Your task to perform on an android device: Search for seafood restaurants on Google Maps Image 0: 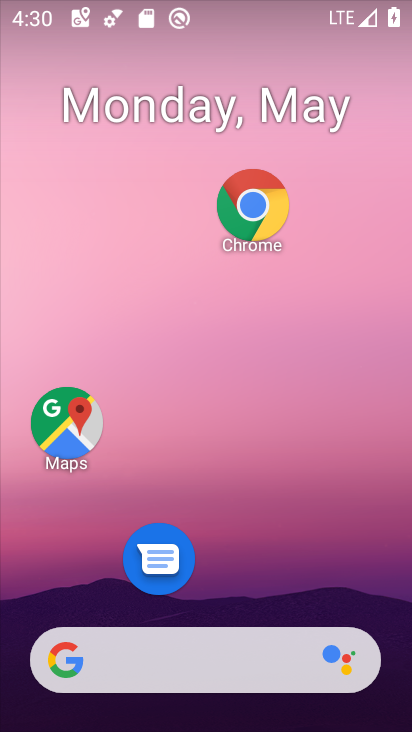
Step 0: click (56, 416)
Your task to perform on an android device: Search for seafood restaurants on Google Maps Image 1: 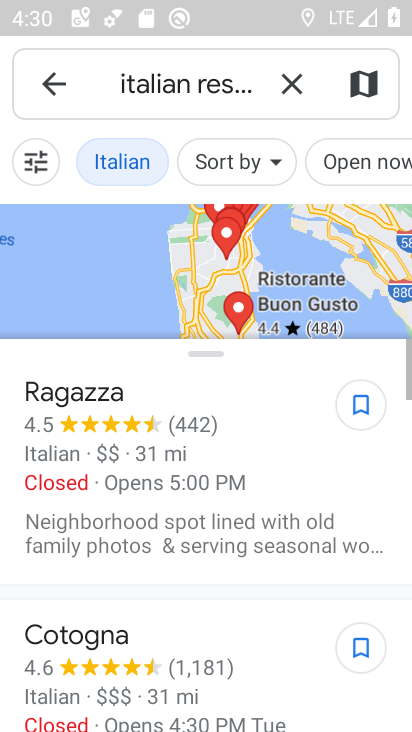
Step 1: click (289, 76)
Your task to perform on an android device: Search for seafood restaurants on Google Maps Image 2: 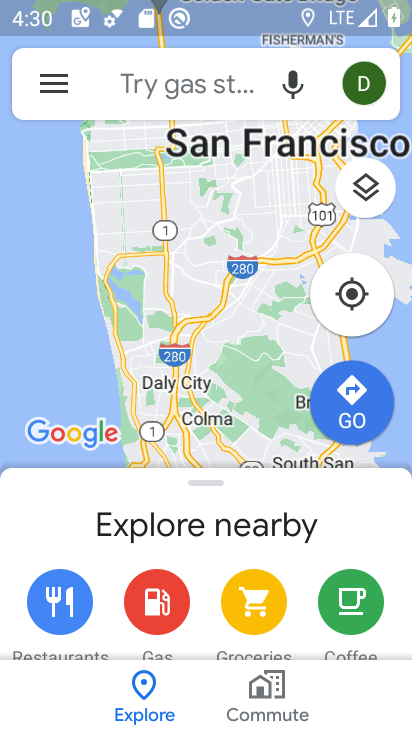
Step 2: click (159, 89)
Your task to perform on an android device: Search for seafood restaurants on Google Maps Image 3: 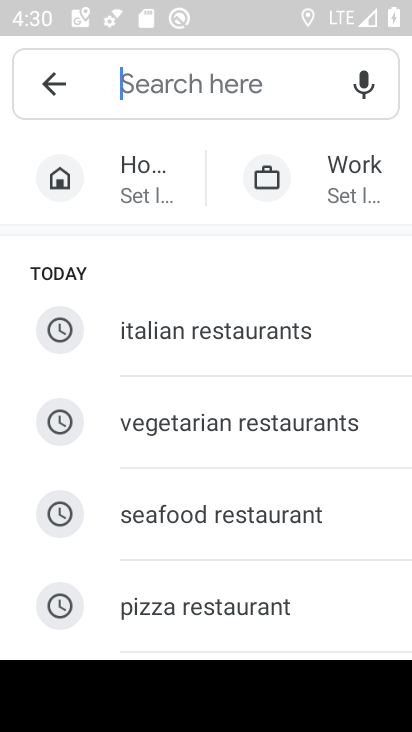
Step 3: click (224, 522)
Your task to perform on an android device: Search for seafood restaurants on Google Maps Image 4: 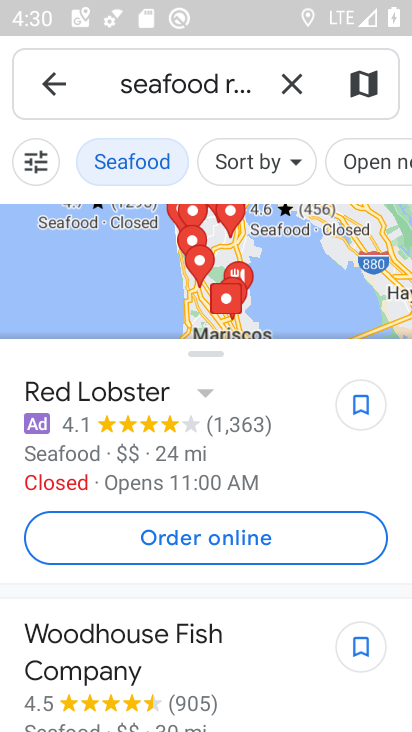
Step 4: task complete